Your task to perform on an android device: check data usage Image 0: 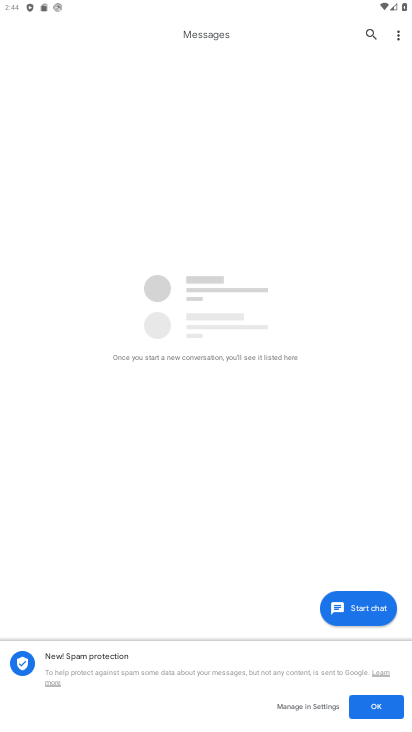
Step 0: press home button
Your task to perform on an android device: check data usage Image 1: 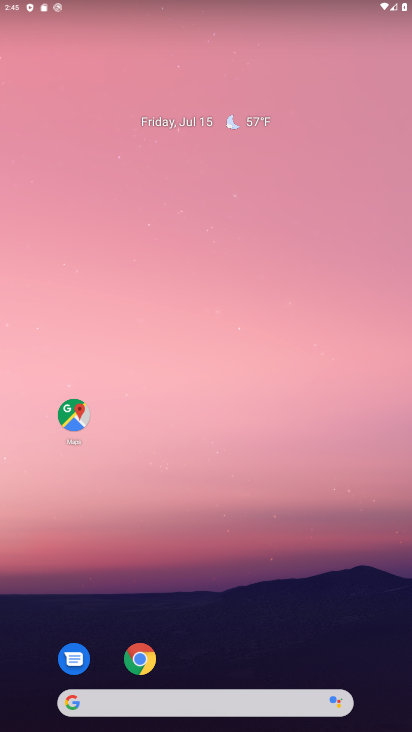
Step 1: drag from (258, 616) to (310, 175)
Your task to perform on an android device: check data usage Image 2: 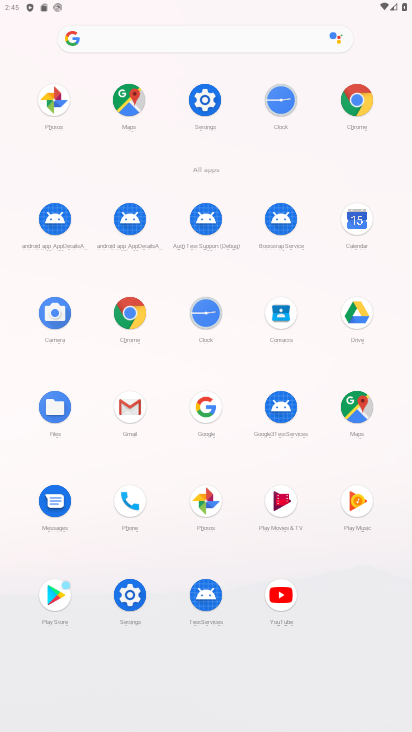
Step 2: click (134, 608)
Your task to perform on an android device: check data usage Image 3: 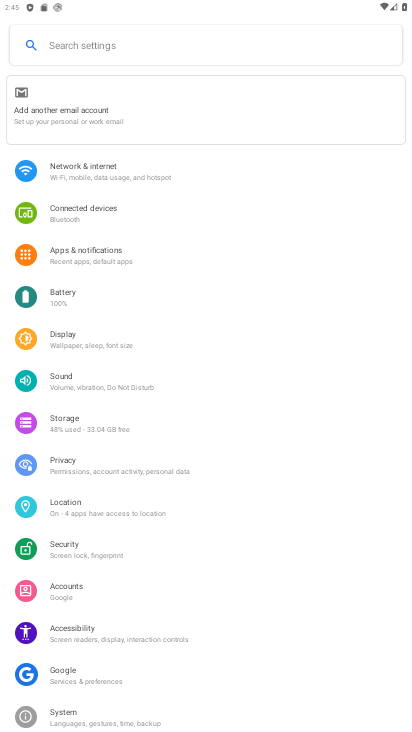
Step 3: click (113, 176)
Your task to perform on an android device: check data usage Image 4: 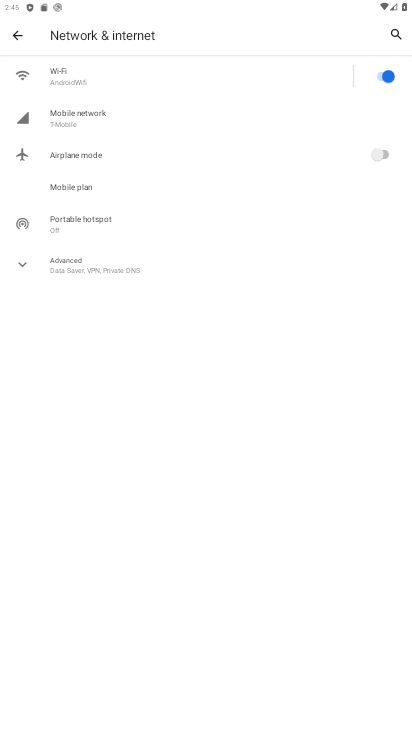
Step 4: click (87, 121)
Your task to perform on an android device: check data usage Image 5: 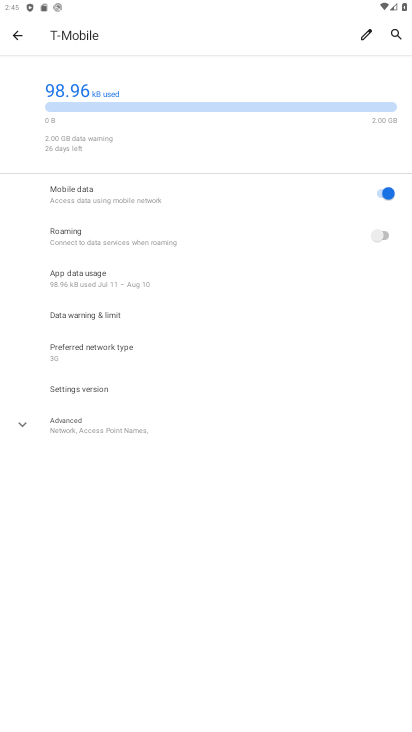
Step 5: click (101, 282)
Your task to perform on an android device: check data usage Image 6: 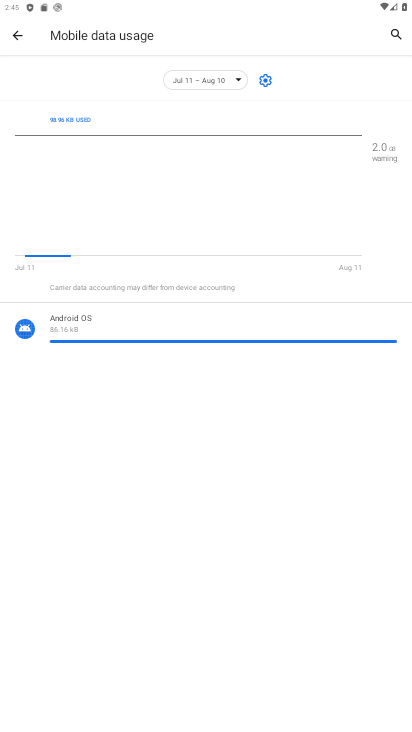
Step 6: task complete